Your task to perform on an android device: turn on priority inbox in the gmail app Image 0: 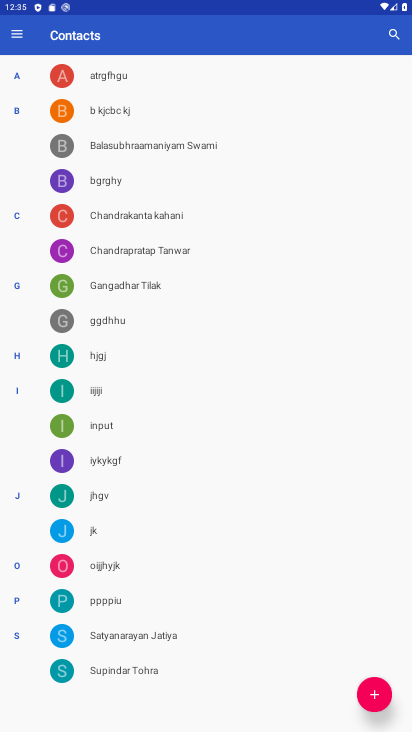
Step 0: press home button
Your task to perform on an android device: turn on priority inbox in the gmail app Image 1: 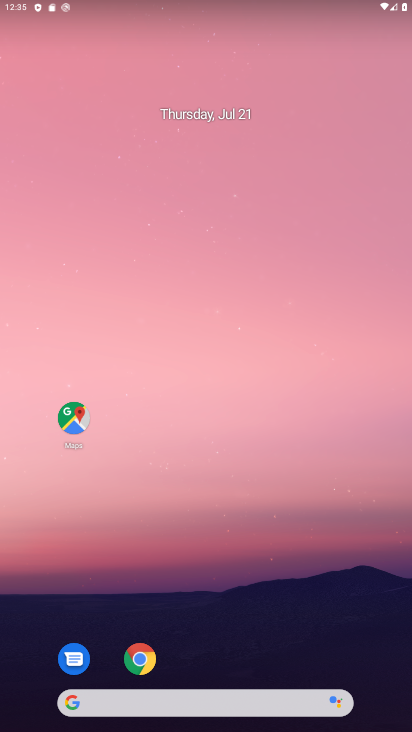
Step 1: drag from (202, 698) to (246, 72)
Your task to perform on an android device: turn on priority inbox in the gmail app Image 2: 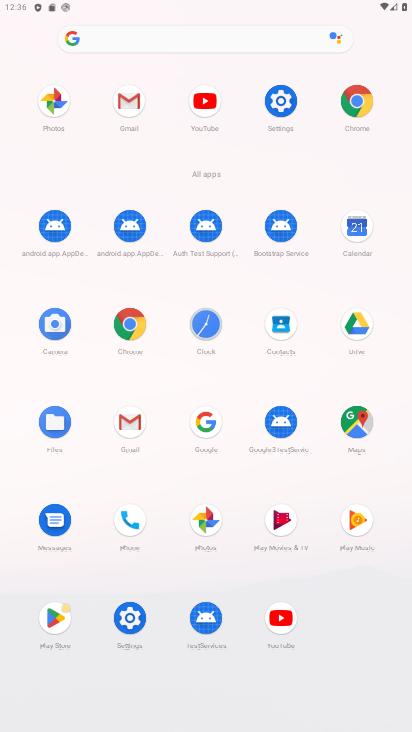
Step 2: click (129, 98)
Your task to perform on an android device: turn on priority inbox in the gmail app Image 3: 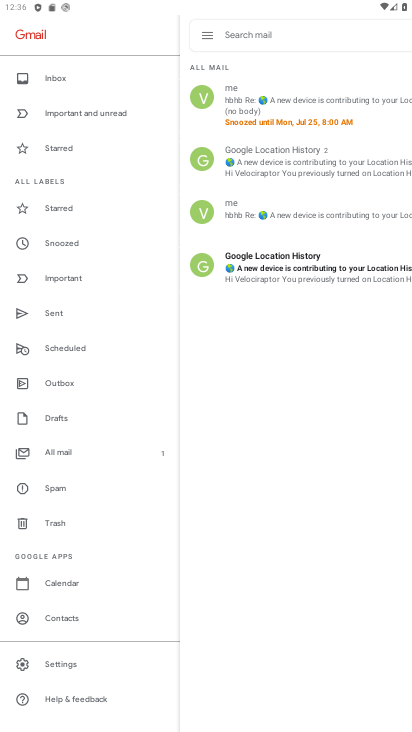
Step 3: click (69, 663)
Your task to perform on an android device: turn on priority inbox in the gmail app Image 4: 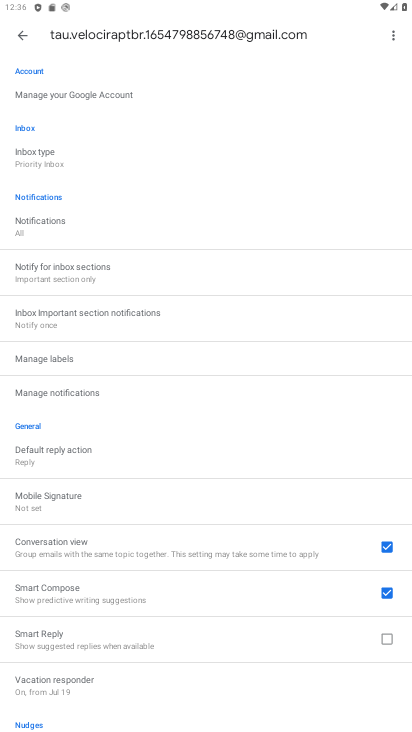
Step 4: click (42, 160)
Your task to perform on an android device: turn on priority inbox in the gmail app Image 5: 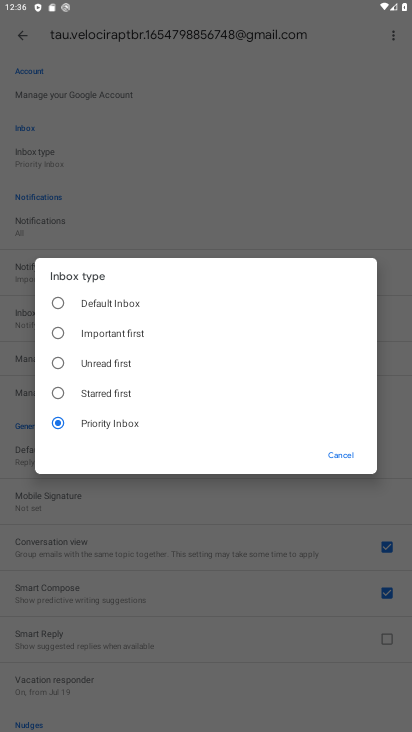
Step 5: click (56, 425)
Your task to perform on an android device: turn on priority inbox in the gmail app Image 6: 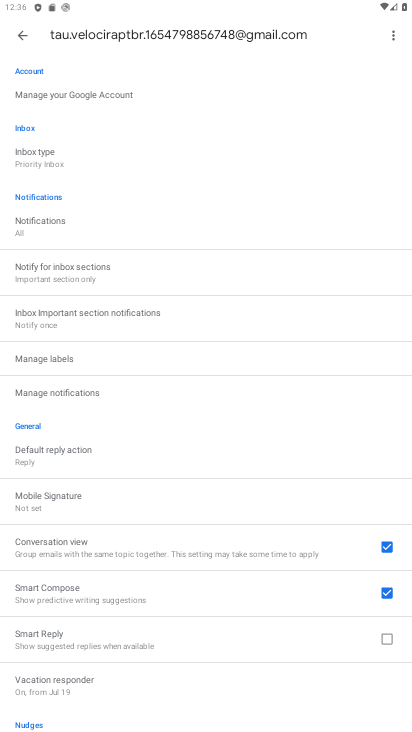
Step 6: task complete